Your task to perform on an android device: Open Chrome and go to the settings page Image 0: 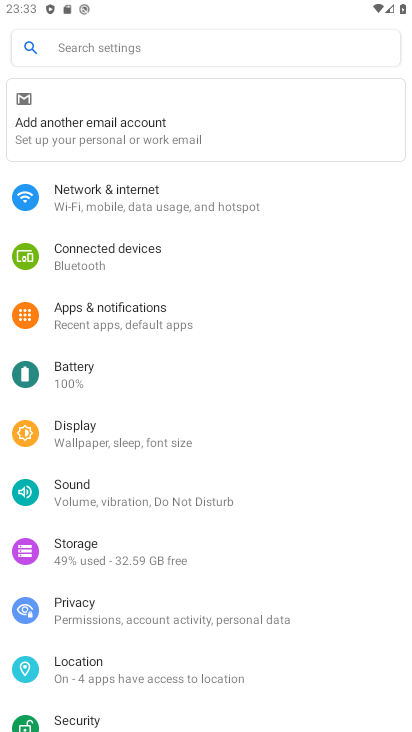
Step 0: press home button
Your task to perform on an android device: Open Chrome and go to the settings page Image 1: 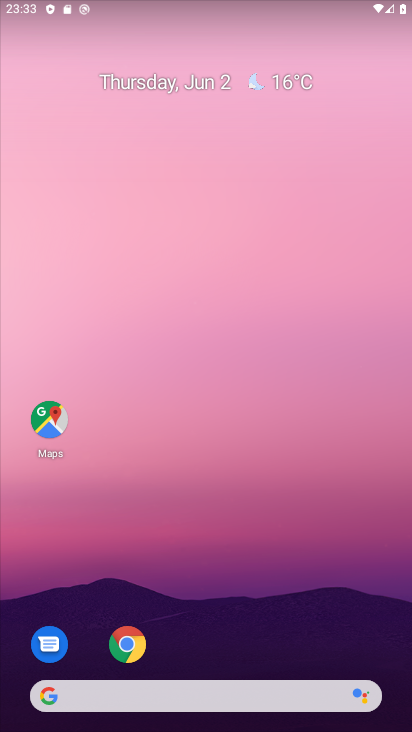
Step 1: drag from (151, 651) to (274, 290)
Your task to perform on an android device: Open Chrome and go to the settings page Image 2: 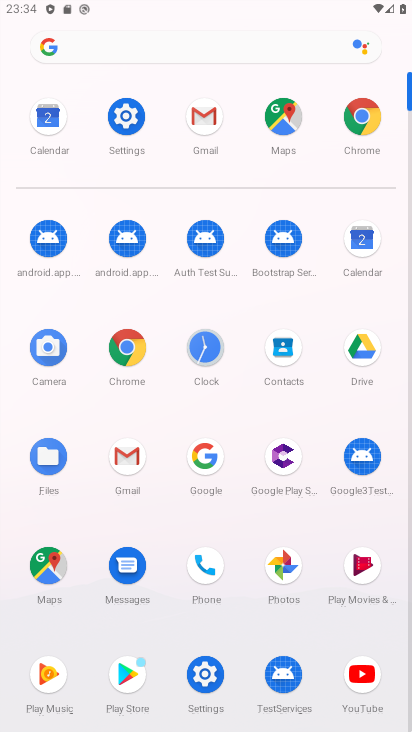
Step 2: click (357, 113)
Your task to perform on an android device: Open Chrome and go to the settings page Image 3: 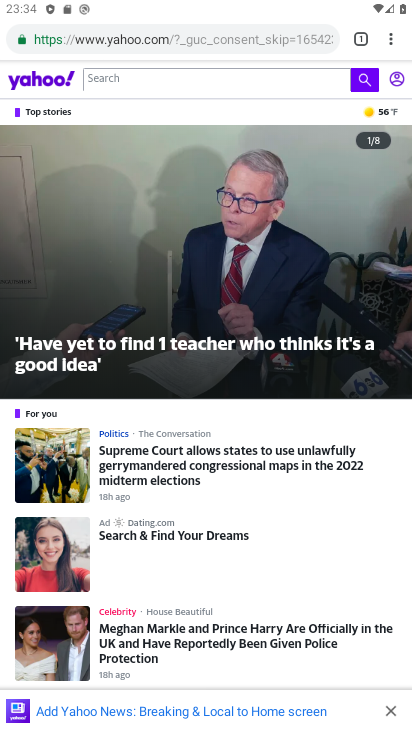
Step 3: click (389, 35)
Your task to perform on an android device: Open Chrome and go to the settings page Image 4: 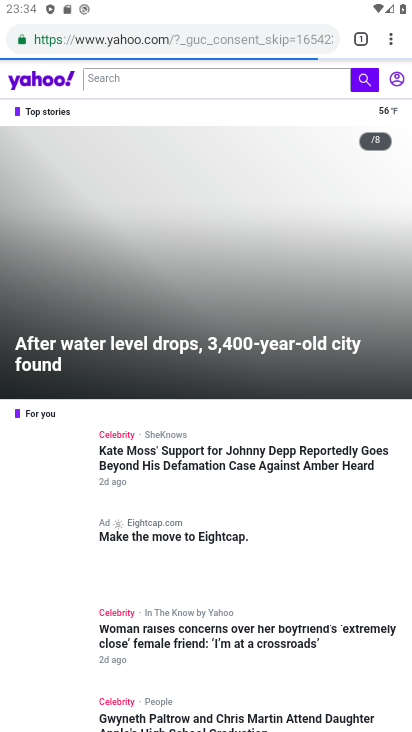
Step 4: click (390, 38)
Your task to perform on an android device: Open Chrome and go to the settings page Image 5: 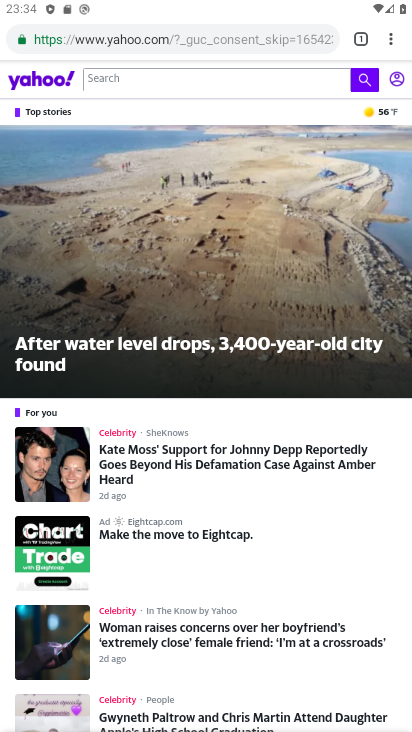
Step 5: click (390, 40)
Your task to perform on an android device: Open Chrome and go to the settings page Image 6: 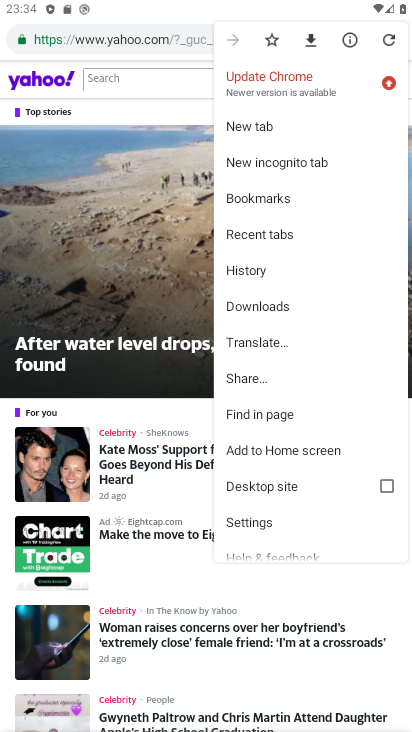
Step 6: click (271, 515)
Your task to perform on an android device: Open Chrome and go to the settings page Image 7: 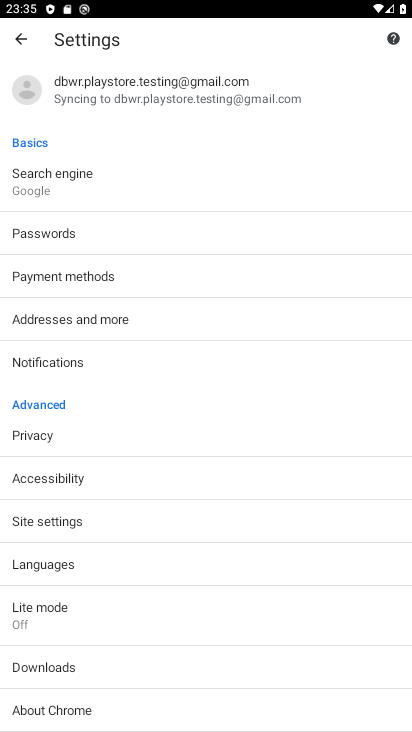
Step 7: task complete